Your task to perform on an android device: Go to Wikipedia Image 0: 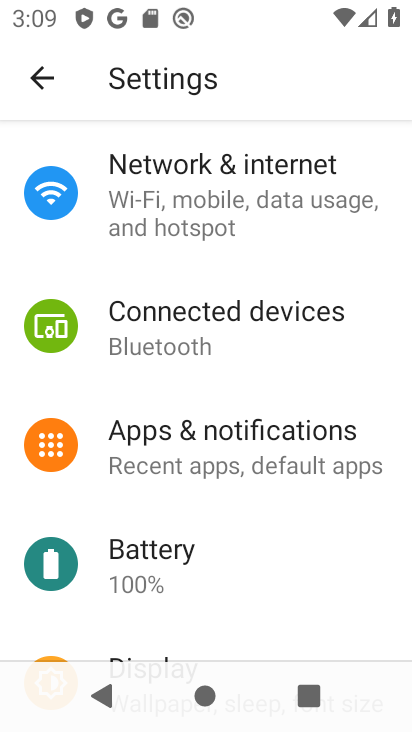
Step 0: press back button
Your task to perform on an android device: Go to Wikipedia Image 1: 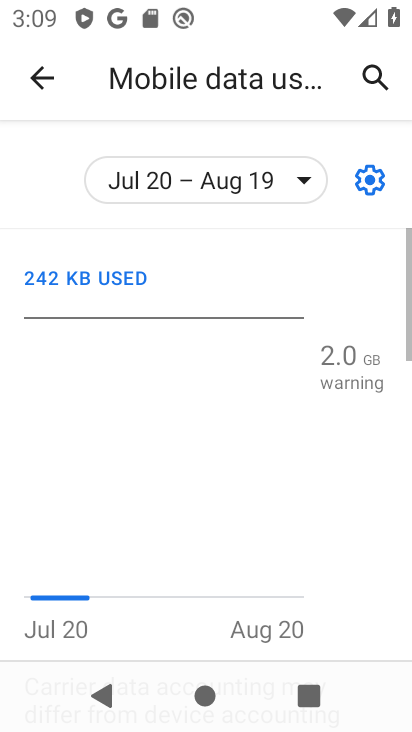
Step 1: press back button
Your task to perform on an android device: Go to Wikipedia Image 2: 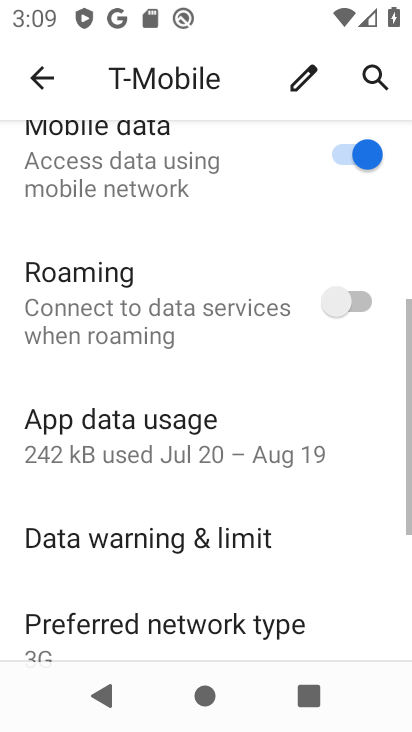
Step 2: press back button
Your task to perform on an android device: Go to Wikipedia Image 3: 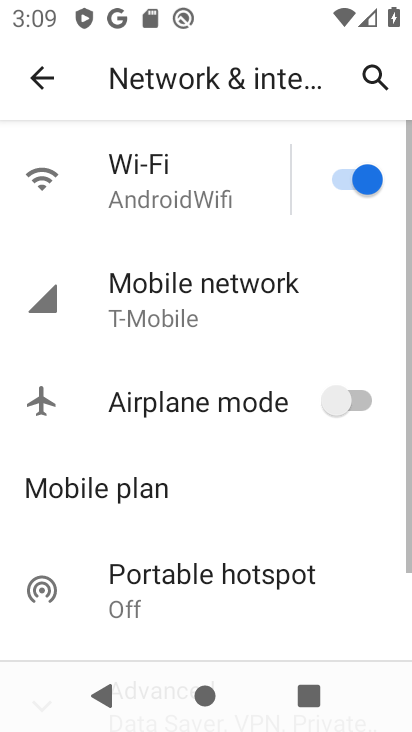
Step 3: press back button
Your task to perform on an android device: Go to Wikipedia Image 4: 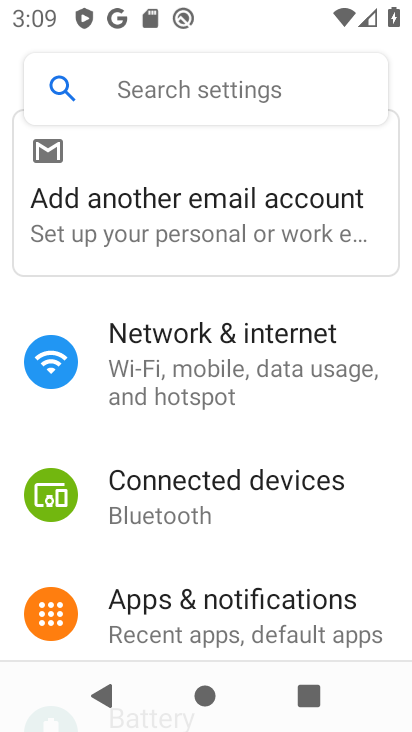
Step 4: press back button
Your task to perform on an android device: Go to Wikipedia Image 5: 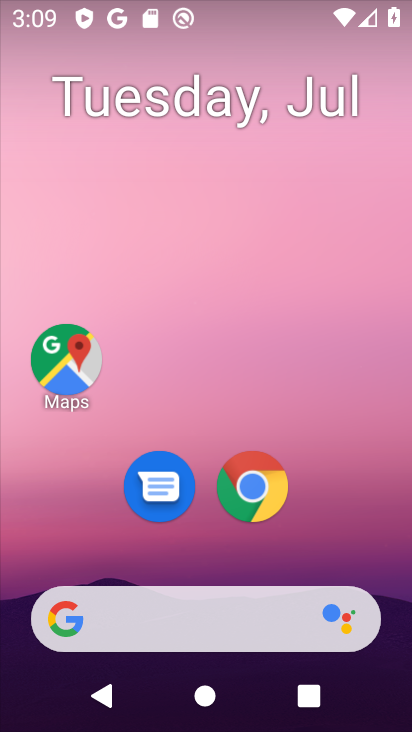
Step 5: click (235, 480)
Your task to perform on an android device: Go to Wikipedia Image 6: 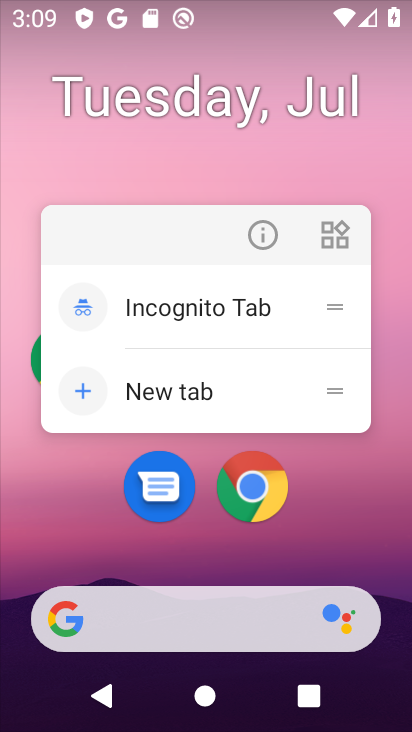
Step 6: click (248, 476)
Your task to perform on an android device: Go to Wikipedia Image 7: 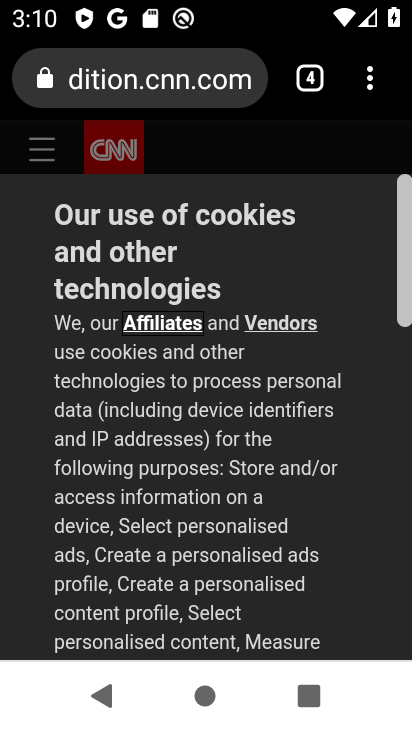
Step 7: click (309, 92)
Your task to perform on an android device: Go to Wikipedia Image 8: 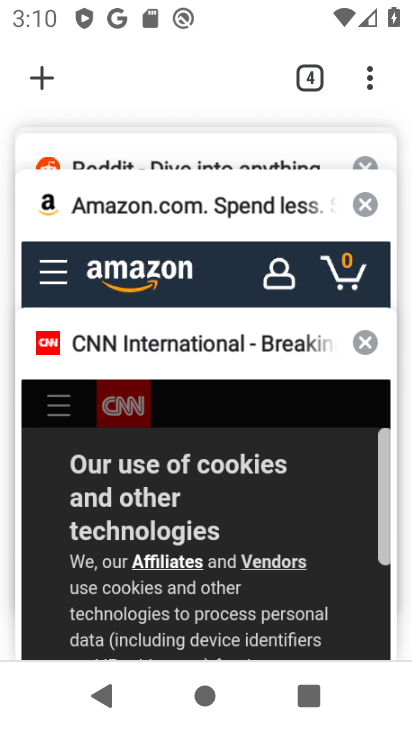
Step 8: click (43, 73)
Your task to perform on an android device: Go to Wikipedia Image 9: 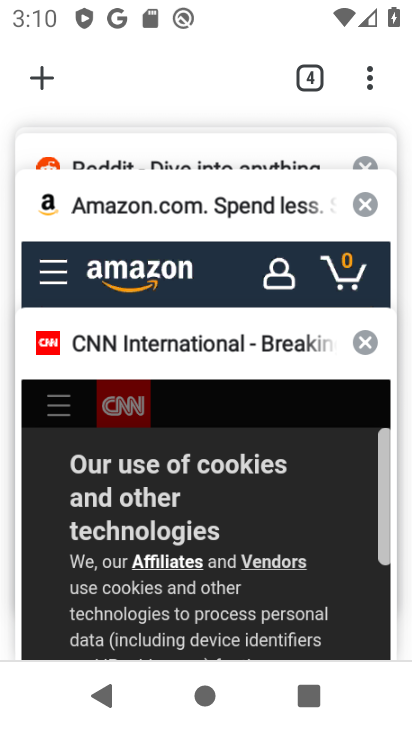
Step 9: click (43, 73)
Your task to perform on an android device: Go to Wikipedia Image 10: 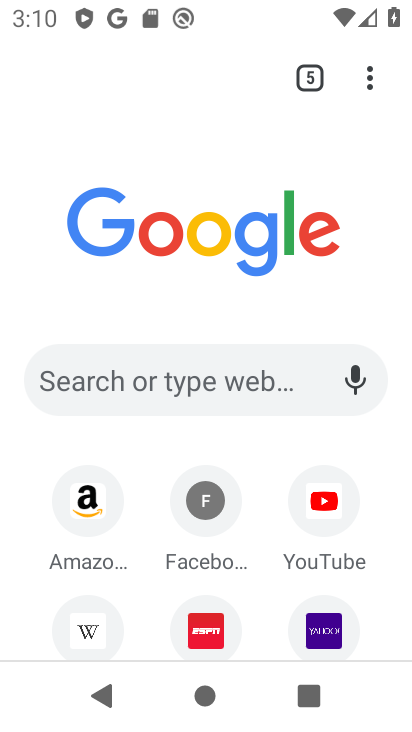
Step 10: click (95, 627)
Your task to perform on an android device: Go to Wikipedia Image 11: 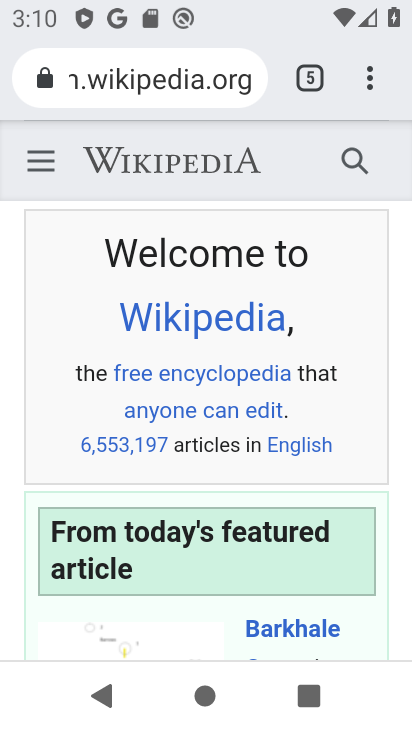
Step 11: task complete